Your task to perform on an android device: turn on improve location accuracy Image 0: 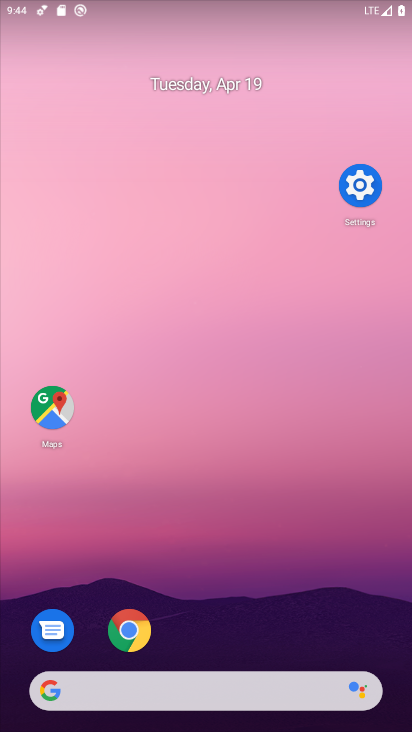
Step 0: drag from (247, 662) to (229, 123)
Your task to perform on an android device: turn on improve location accuracy Image 1: 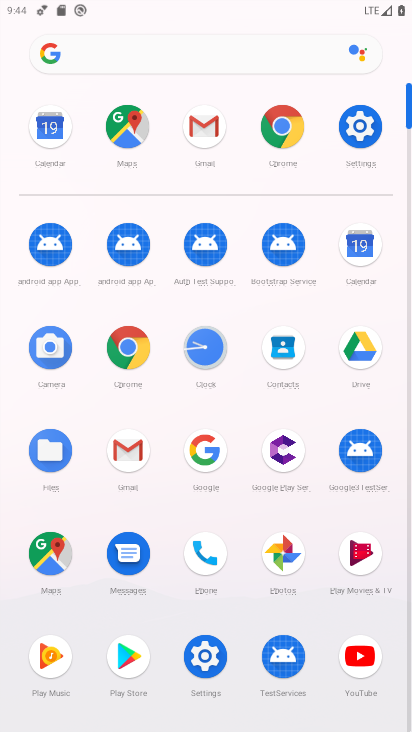
Step 1: click (354, 146)
Your task to perform on an android device: turn on improve location accuracy Image 2: 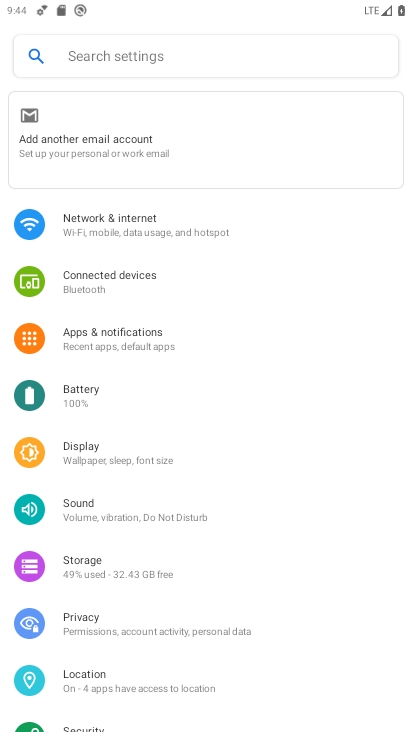
Step 2: click (98, 684)
Your task to perform on an android device: turn on improve location accuracy Image 3: 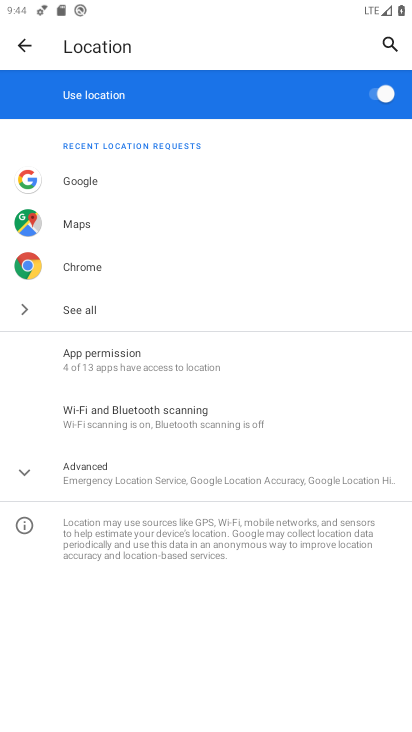
Step 3: click (143, 482)
Your task to perform on an android device: turn on improve location accuracy Image 4: 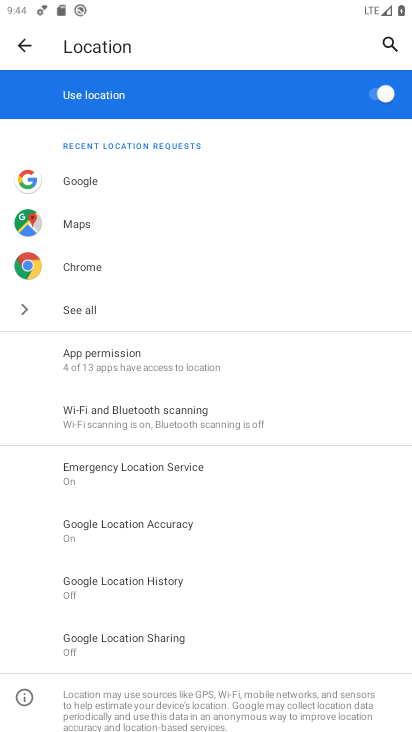
Step 4: click (145, 532)
Your task to perform on an android device: turn on improve location accuracy Image 5: 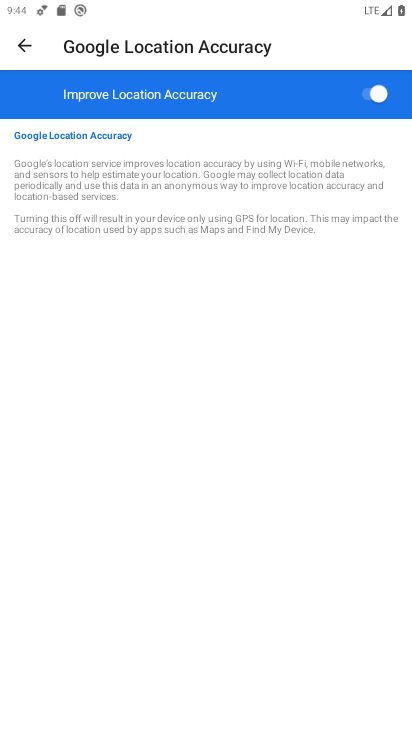
Step 5: task complete